Your task to perform on an android device: Do I have any events today? Image 0: 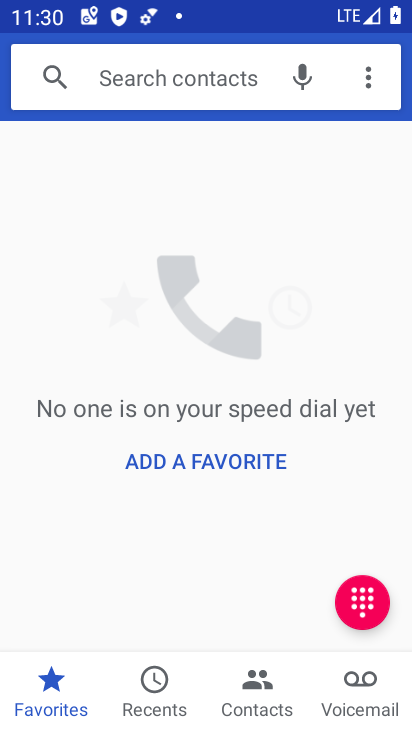
Step 0: drag from (195, 676) to (189, 273)
Your task to perform on an android device: Do I have any events today? Image 1: 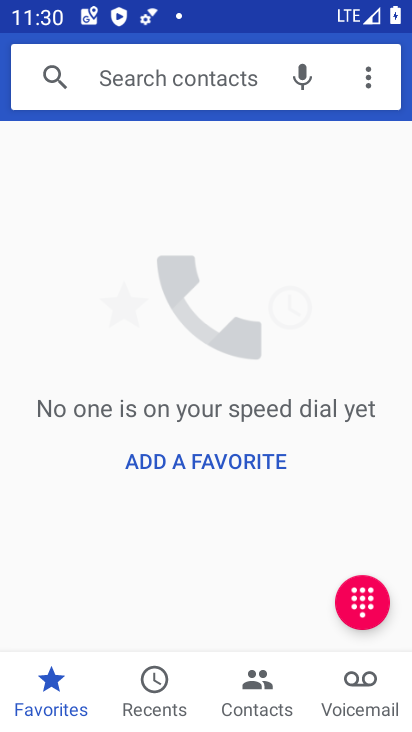
Step 1: press home button
Your task to perform on an android device: Do I have any events today? Image 2: 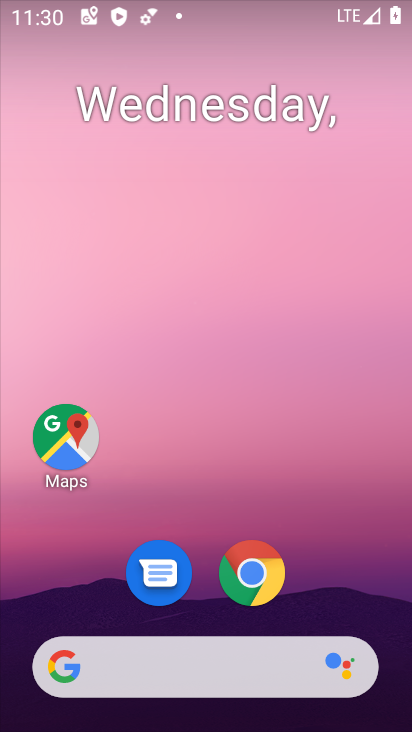
Step 2: drag from (238, 664) to (234, 341)
Your task to perform on an android device: Do I have any events today? Image 3: 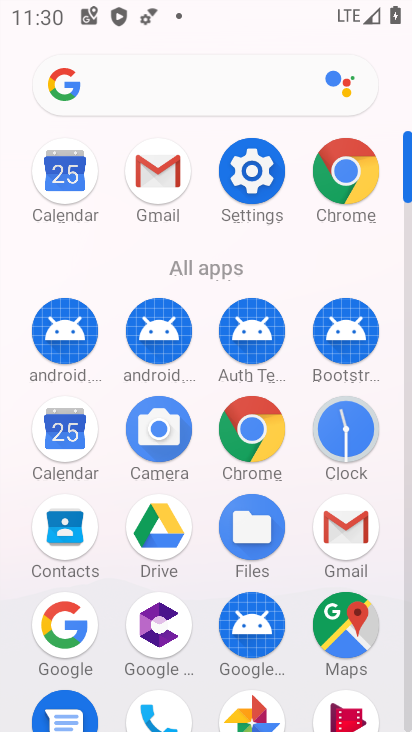
Step 3: click (61, 179)
Your task to perform on an android device: Do I have any events today? Image 4: 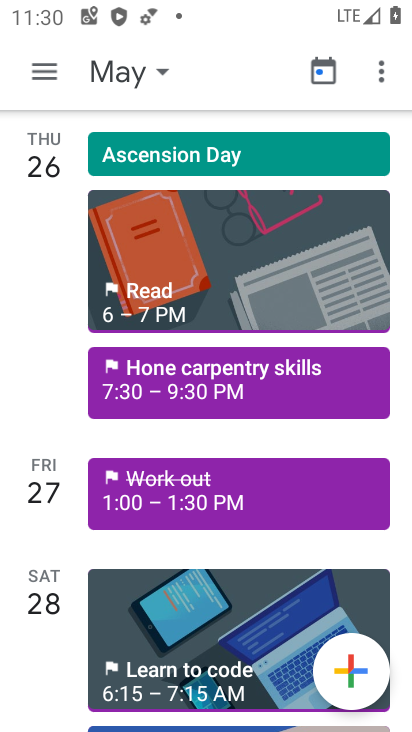
Step 4: click (132, 68)
Your task to perform on an android device: Do I have any events today? Image 5: 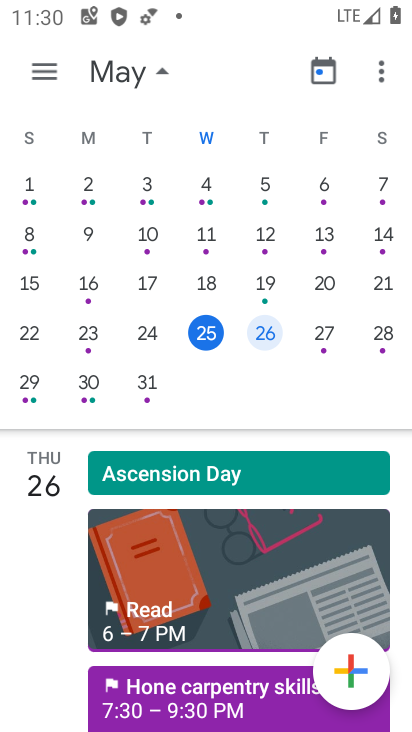
Step 5: click (205, 334)
Your task to perform on an android device: Do I have any events today? Image 6: 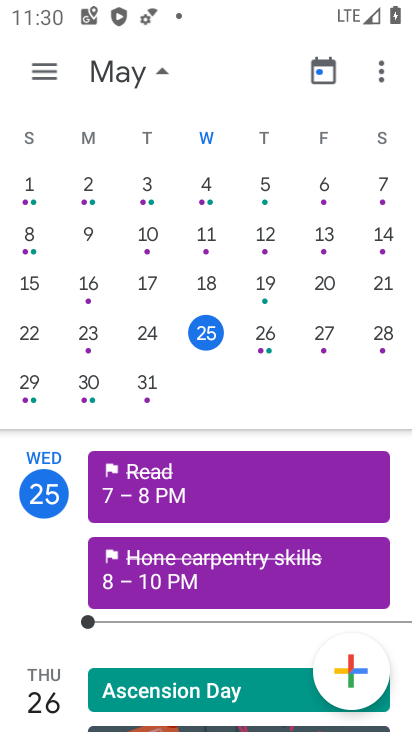
Step 6: click (152, 489)
Your task to perform on an android device: Do I have any events today? Image 7: 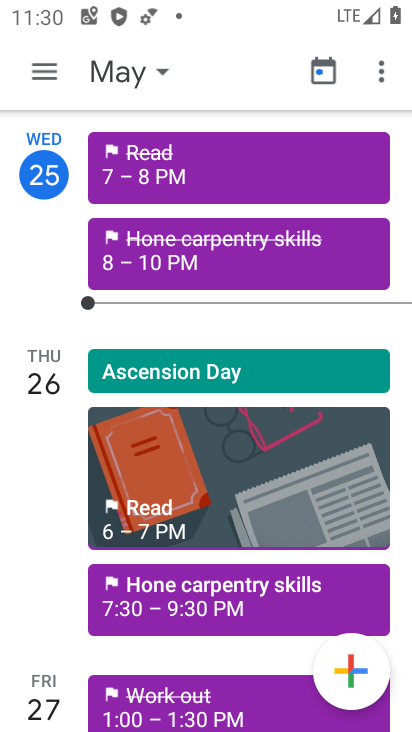
Step 7: task complete